Your task to perform on an android device: Do I have any events this weekend? Image 0: 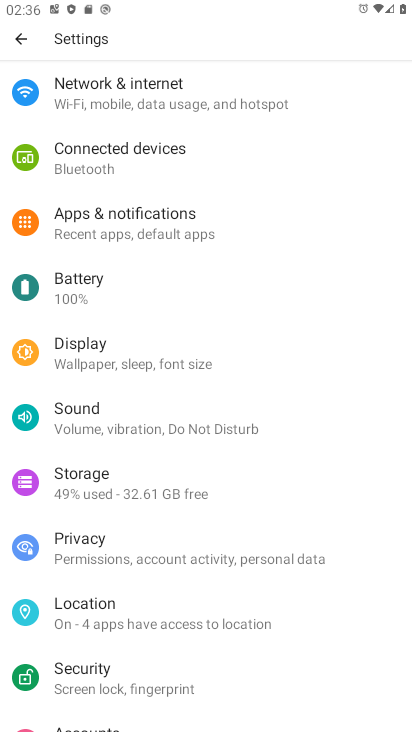
Step 0: press home button
Your task to perform on an android device: Do I have any events this weekend? Image 1: 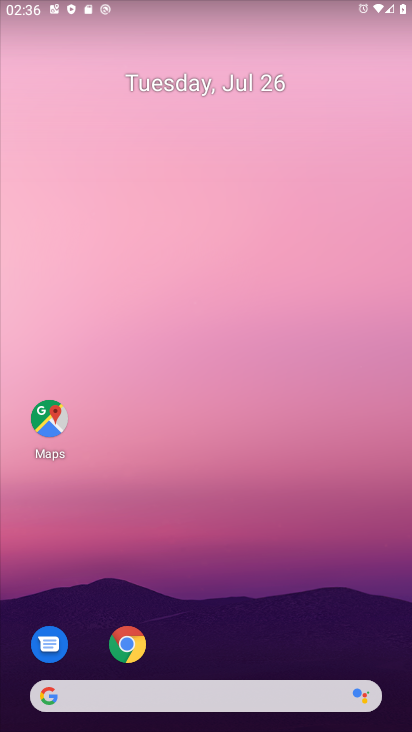
Step 1: click (180, 160)
Your task to perform on an android device: Do I have any events this weekend? Image 2: 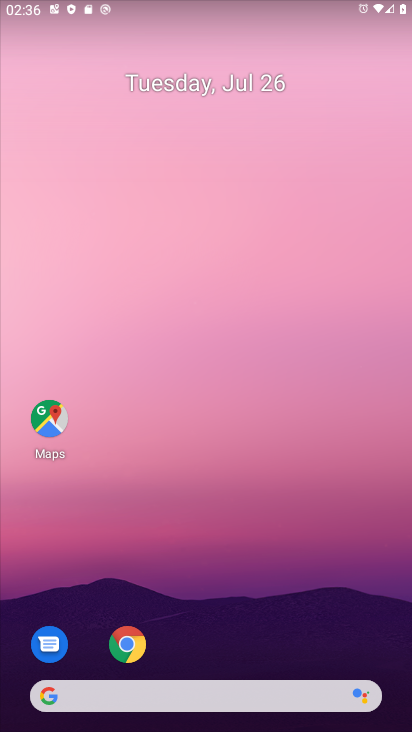
Step 2: drag from (165, 625) to (185, 237)
Your task to perform on an android device: Do I have any events this weekend? Image 3: 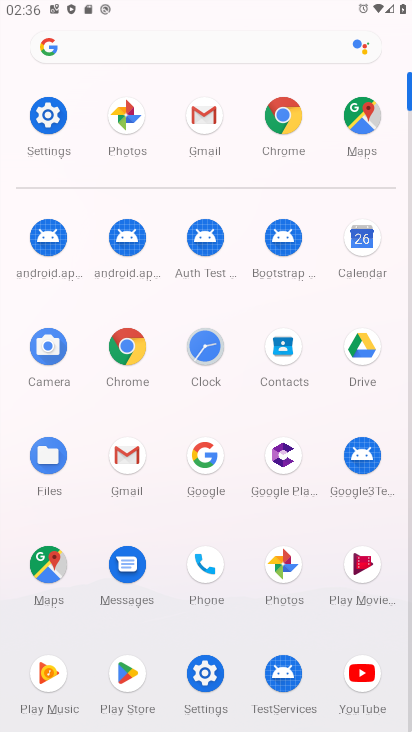
Step 3: click (353, 231)
Your task to perform on an android device: Do I have any events this weekend? Image 4: 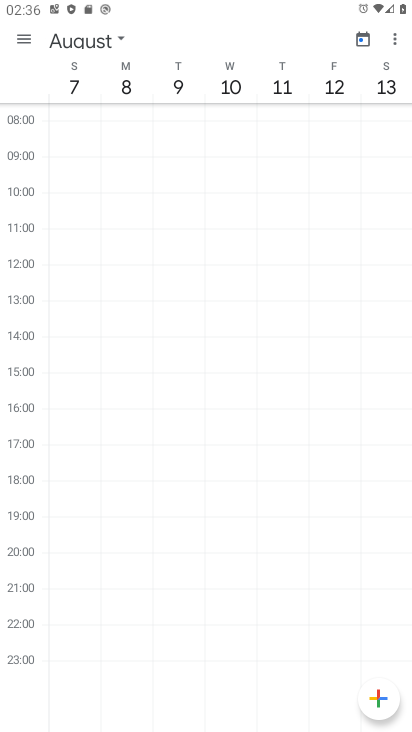
Step 4: task complete